Your task to perform on an android device: Turn on the flashlight Image 0: 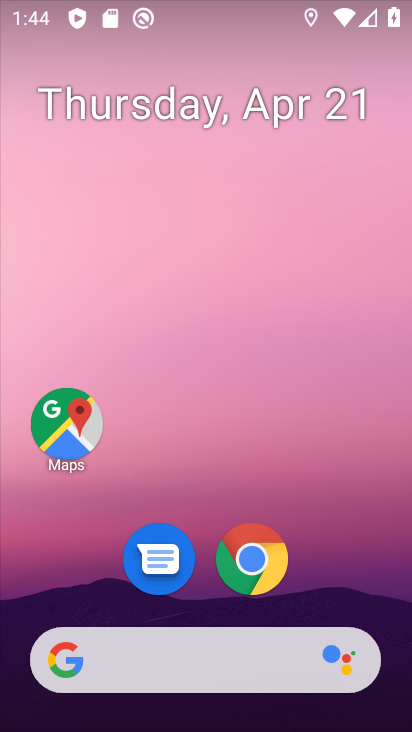
Step 0: drag from (257, 5) to (171, 513)
Your task to perform on an android device: Turn on the flashlight Image 1: 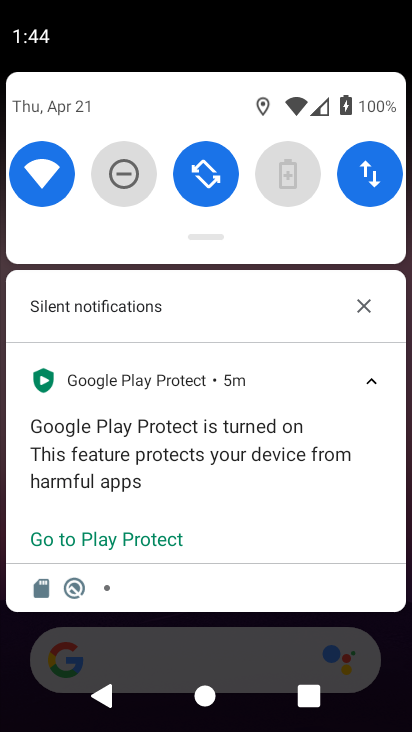
Step 1: task complete